Your task to perform on an android device: snooze an email in the gmail app Image 0: 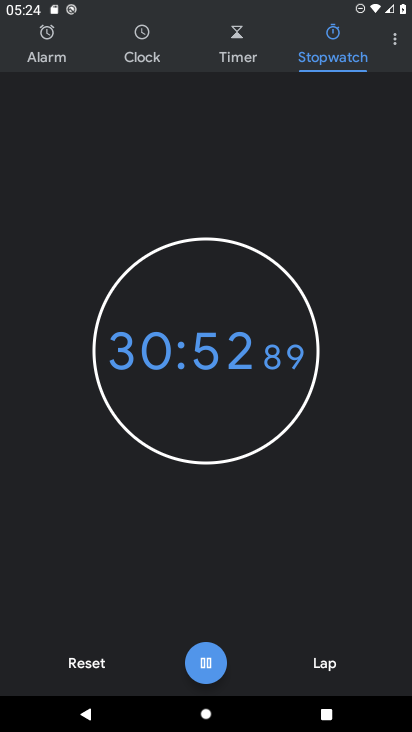
Step 0: press home button
Your task to perform on an android device: snooze an email in the gmail app Image 1: 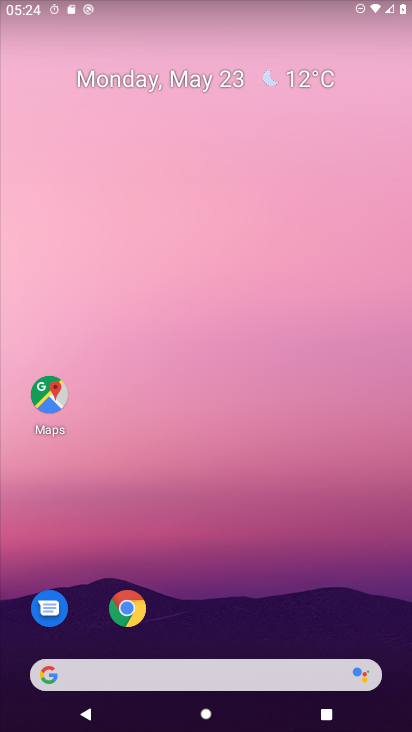
Step 1: drag from (270, 551) to (155, 28)
Your task to perform on an android device: snooze an email in the gmail app Image 2: 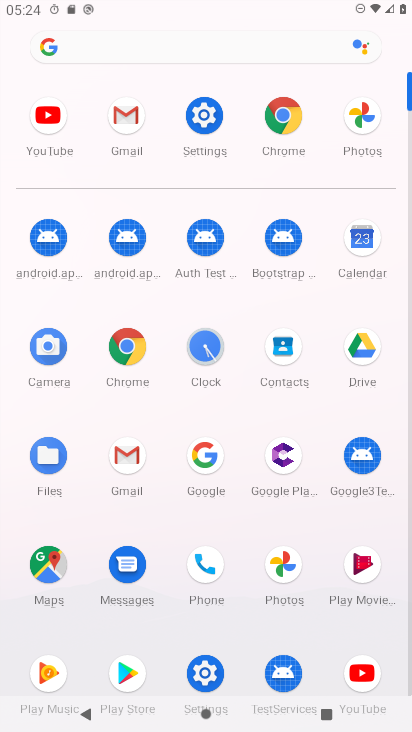
Step 2: click (121, 116)
Your task to perform on an android device: snooze an email in the gmail app Image 3: 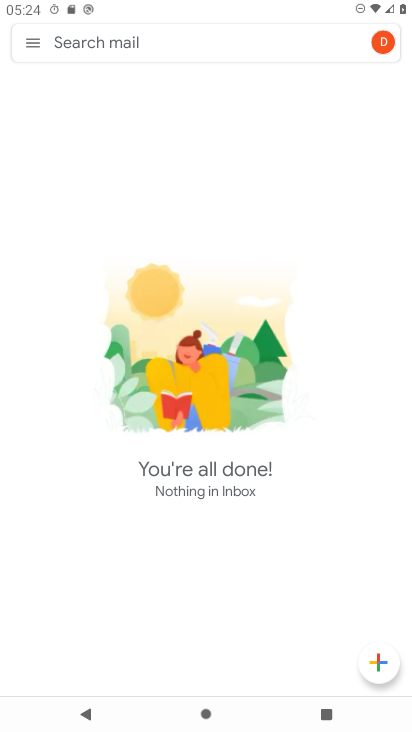
Step 3: task complete